Your task to perform on an android device: add a contact in the contacts app Image 0: 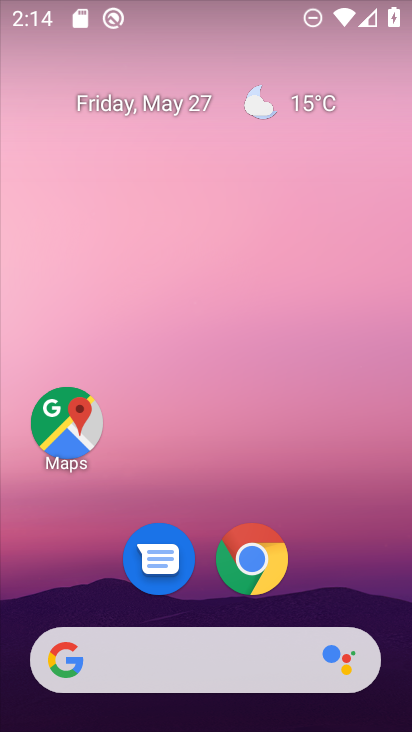
Step 0: drag from (244, 646) to (284, 4)
Your task to perform on an android device: add a contact in the contacts app Image 1: 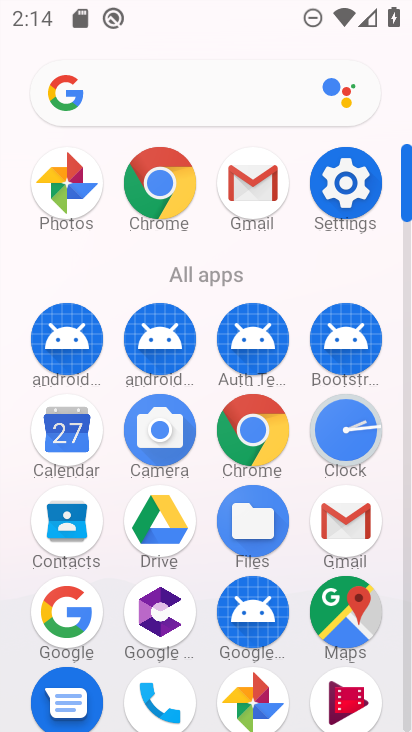
Step 1: click (50, 526)
Your task to perform on an android device: add a contact in the contacts app Image 2: 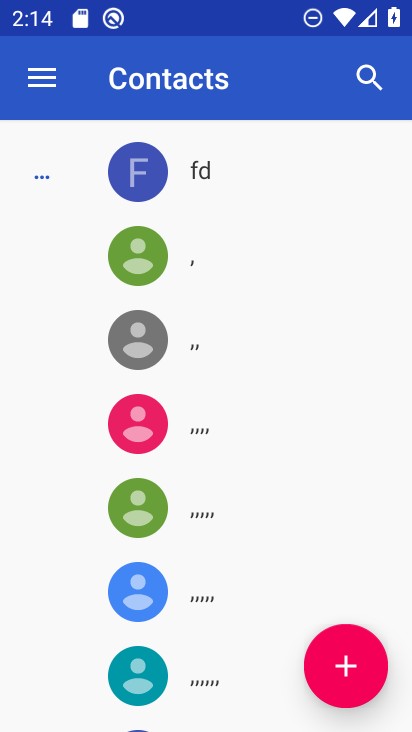
Step 2: click (358, 666)
Your task to perform on an android device: add a contact in the contacts app Image 3: 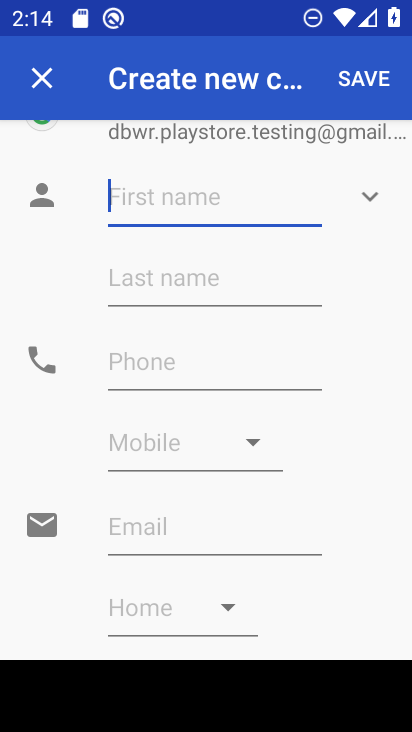
Step 3: type "dsjdkshs"
Your task to perform on an android device: add a contact in the contacts app Image 4: 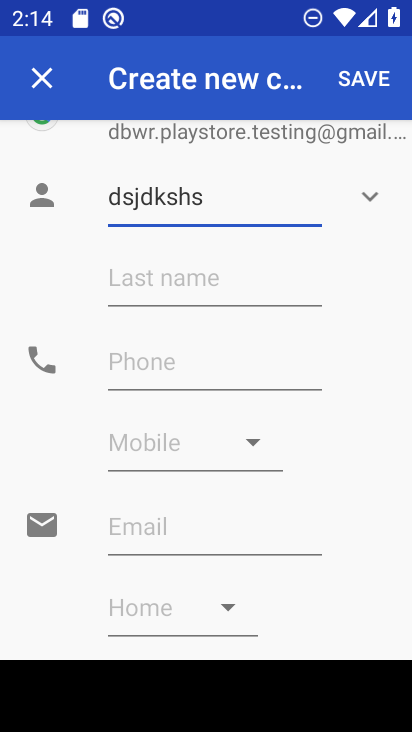
Step 4: click (187, 369)
Your task to perform on an android device: add a contact in the contacts app Image 5: 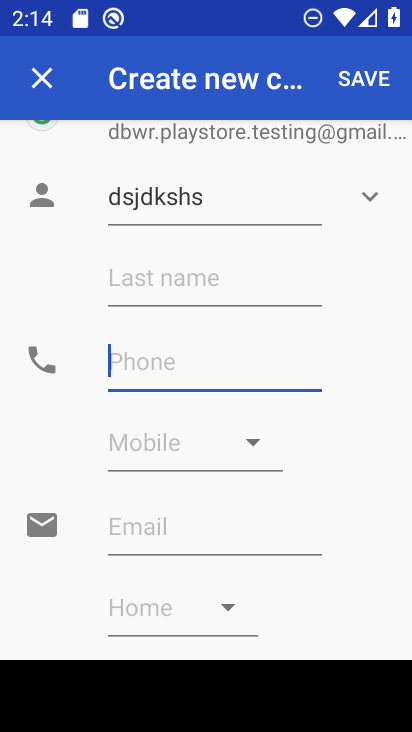
Step 5: type "9897656777"
Your task to perform on an android device: add a contact in the contacts app Image 6: 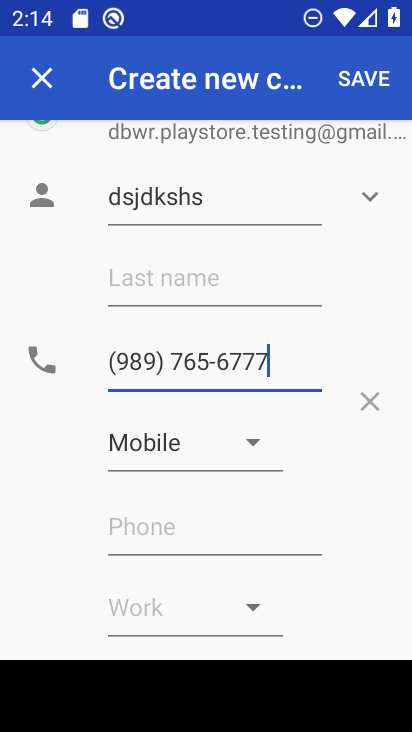
Step 6: click (364, 81)
Your task to perform on an android device: add a contact in the contacts app Image 7: 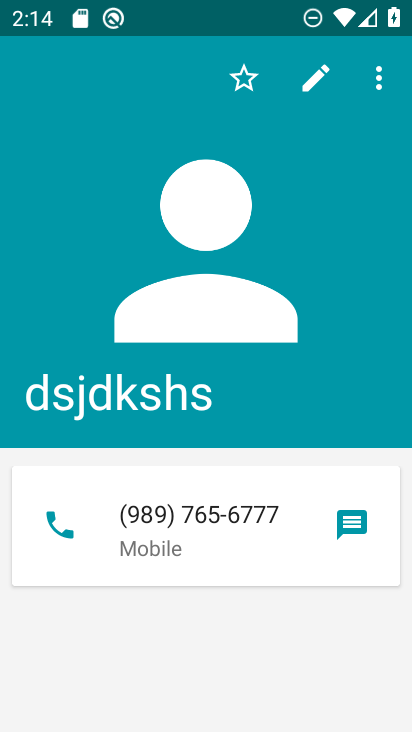
Step 7: task complete